Your task to perform on an android device: change notifications settings Image 0: 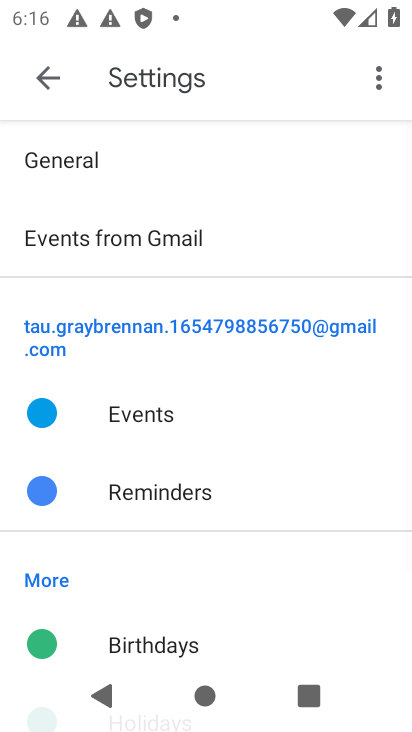
Step 0: press back button
Your task to perform on an android device: change notifications settings Image 1: 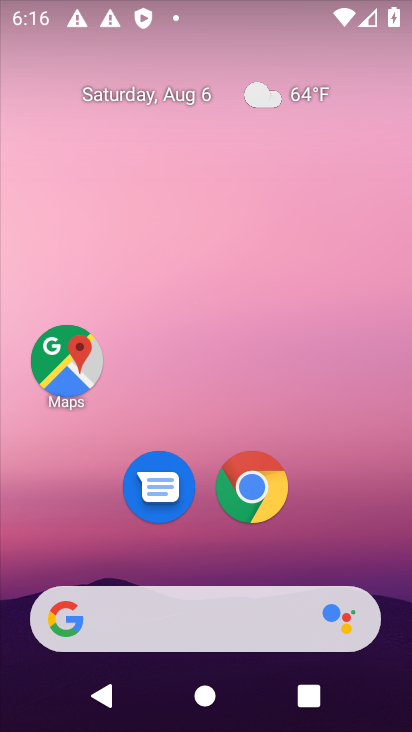
Step 1: drag from (171, 544) to (217, 5)
Your task to perform on an android device: change notifications settings Image 2: 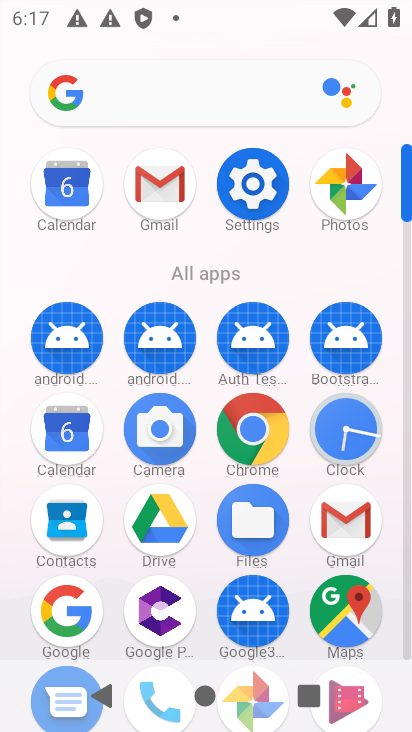
Step 2: click (254, 171)
Your task to perform on an android device: change notifications settings Image 3: 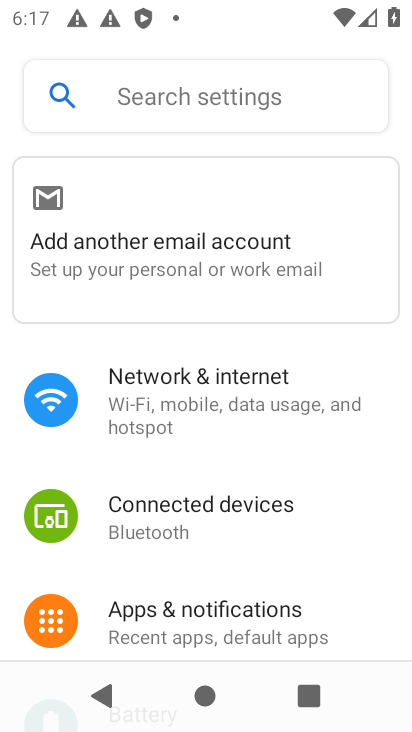
Step 3: click (186, 615)
Your task to perform on an android device: change notifications settings Image 4: 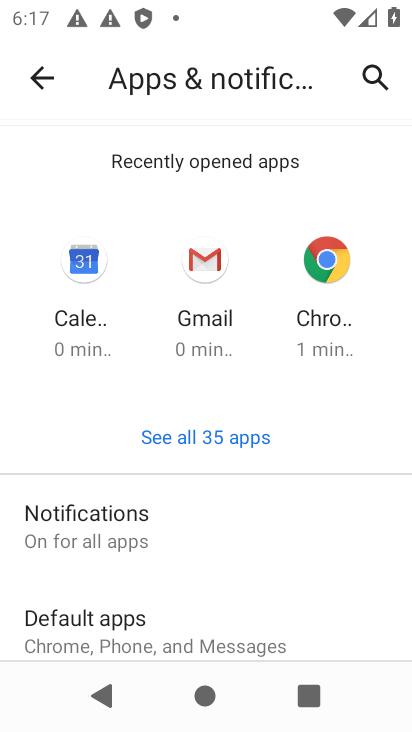
Step 4: press back button
Your task to perform on an android device: change notifications settings Image 5: 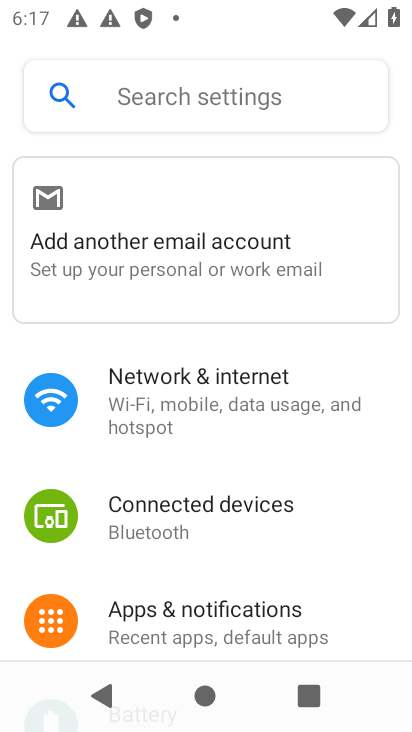
Step 5: click (187, 612)
Your task to perform on an android device: change notifications settings Image 6: 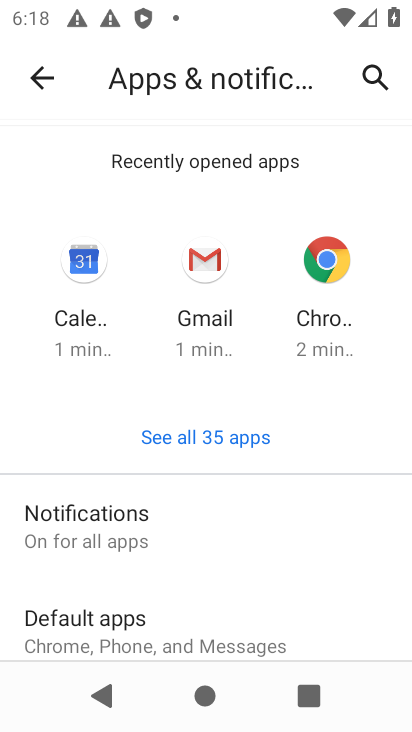
Step 6: click (204, 536)
Your task to perform on an android device: change notifications settings Image 7: 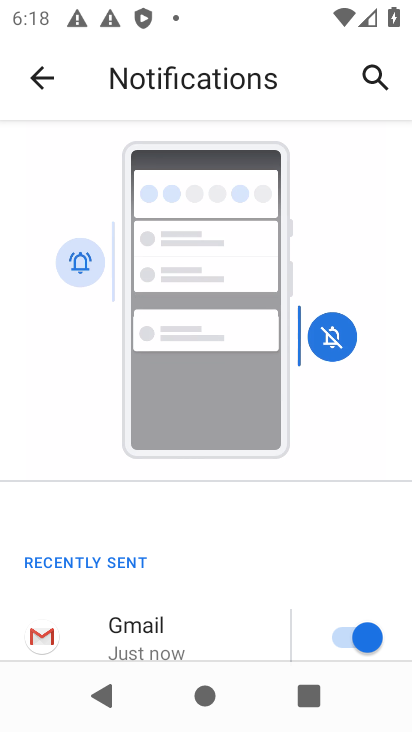
Step 7: drag from (192, 628) to (208, 100)
Your task to perform on an android device: change notifications settings Image 8: 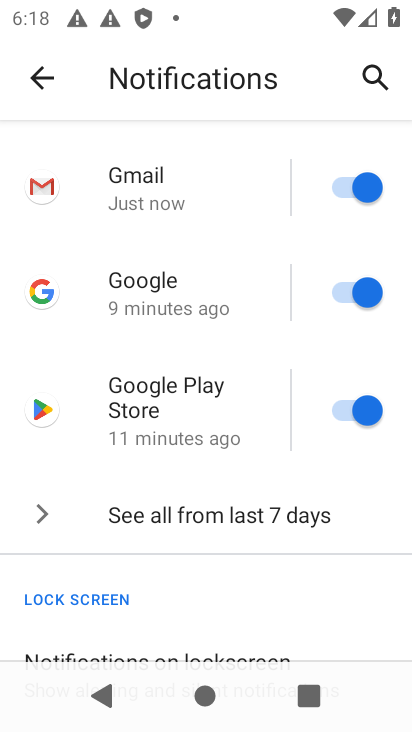
Step 8: drag from (170, 631) to (255, 85)
Your task to perform on an android device: change notifications settings Image 9: 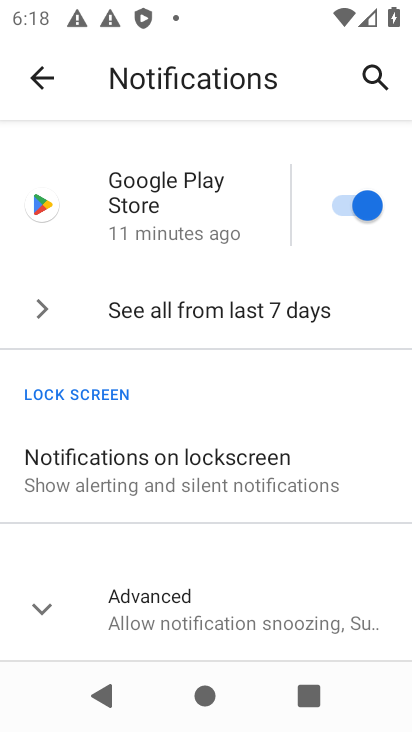
Step 9: click (160, 602)
Your task to perform on an android device: change notifications settings Image 10: 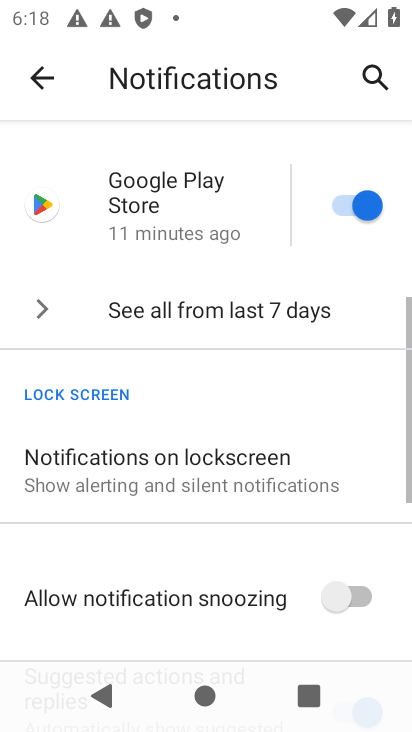
Step 10: click (324, 596)
Your task to perform on an android device: change notifications settings Image 11: 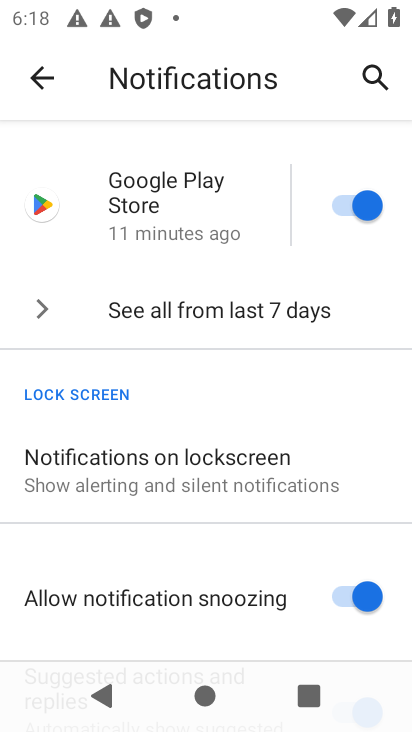
Step 11: task complete